Your task to perform on an android device: turn on location history Image 0: 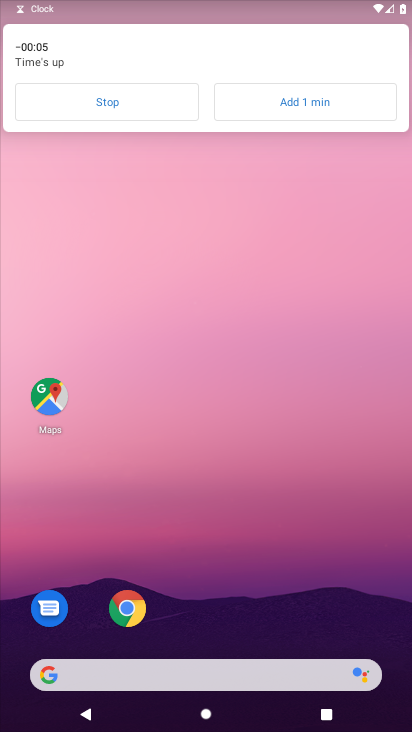
Step 0: click (139, 123)
Your task to perform on an android device: turn on location history Image 1: 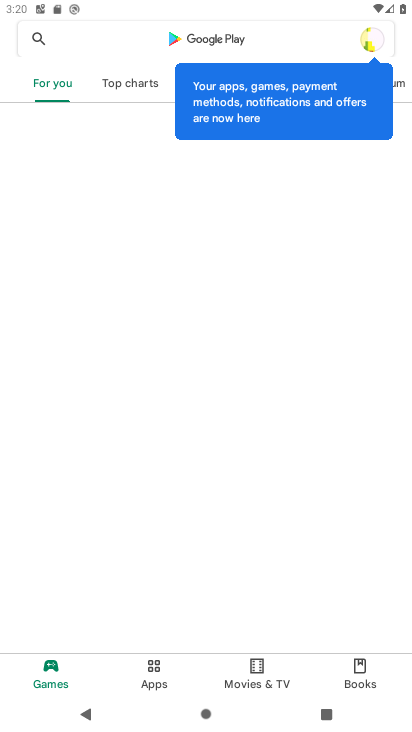
Step 1: press home button
Your task to perform on an android device: turn on location history Image 2: 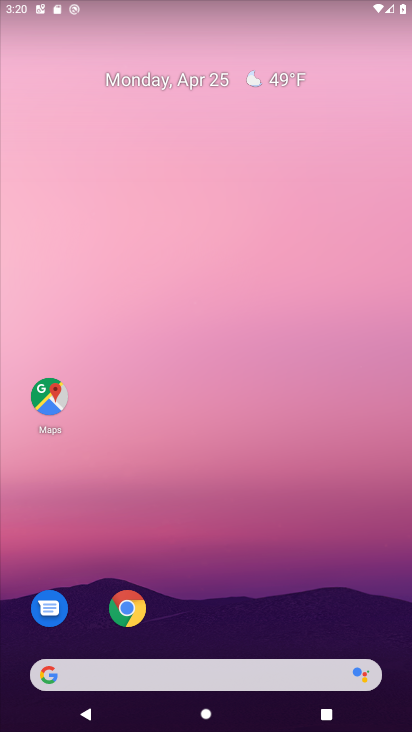
Step 2: drag from (244, 453) to (272, 116)
Your task to perform on an android device: turn on location history Image 3: 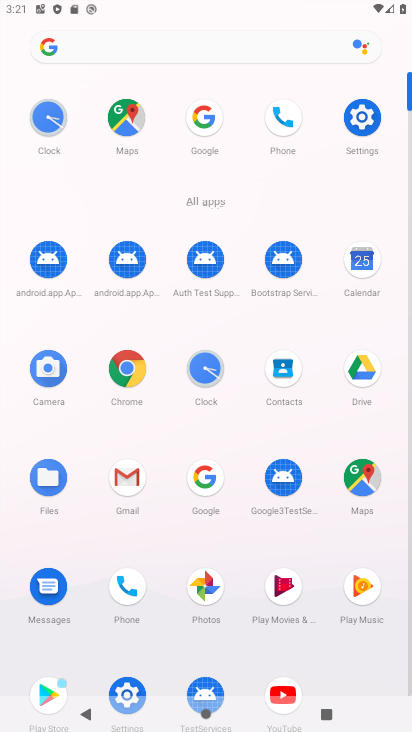
Step 3: click (375, 140)
Your task to perform on an android device: turn on location history Image 4: 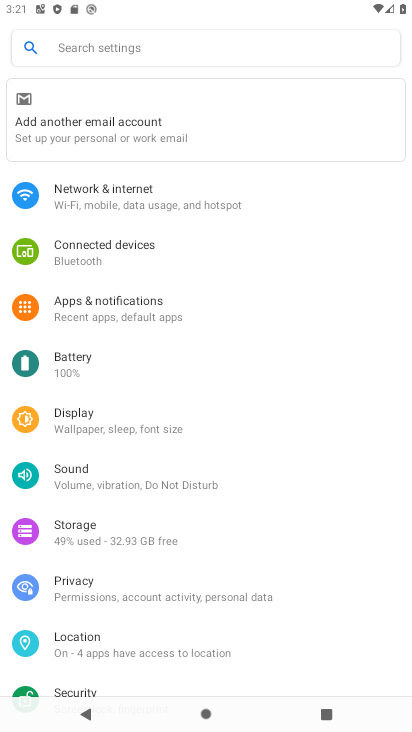
Step 4: click (101, 644)
Your task to perform on an android device: turn on location history Image 5: 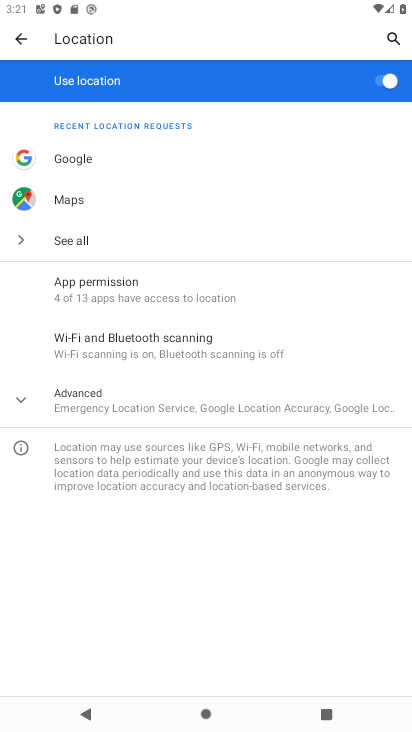
Step 5: click (161, 404)
Your task to perform on an android device: turn on location history Image 6: 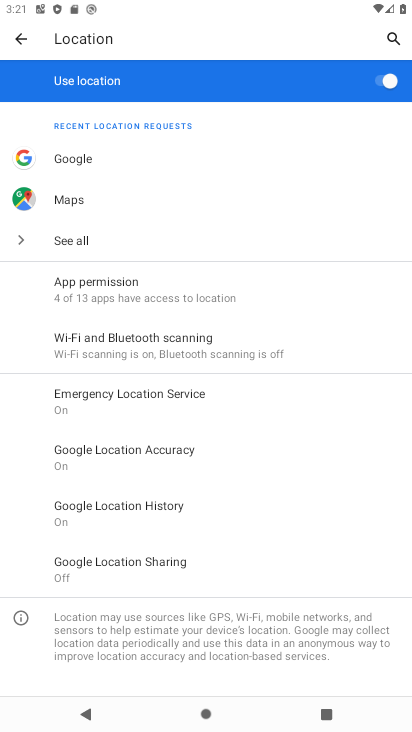
Step 6: drag from (228, 510) to (245, 355)
Your task to perform on an android device: turn on location history Image 7: 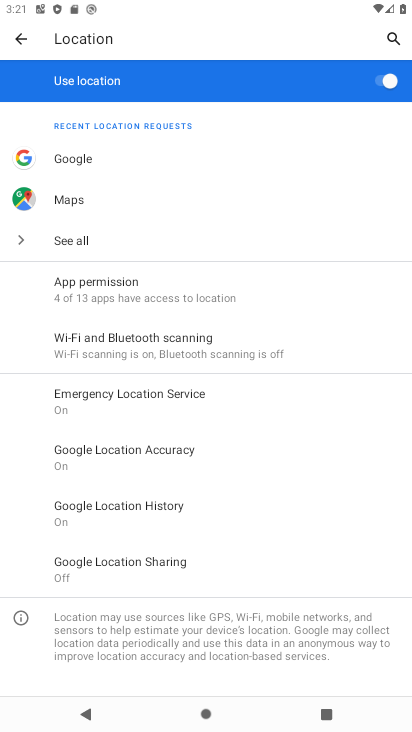
Step 7: click (193, 511)
Your task to perform on an android device: turn on location history Image 8: 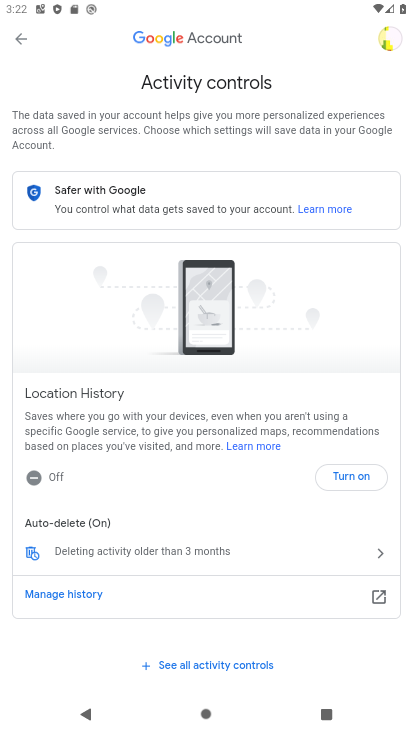
Step 8: click (343, 477)
Your task to perform on an android device: turn on location history Image 9: 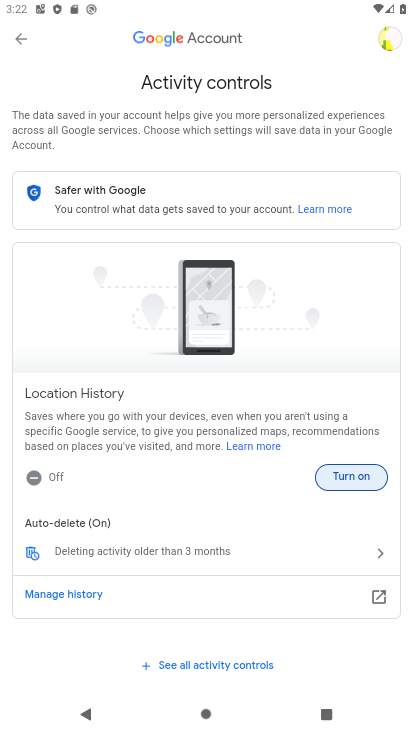
Step 9: click (373, 479)
Your task to perform on an android device: turn on location history Image 10: 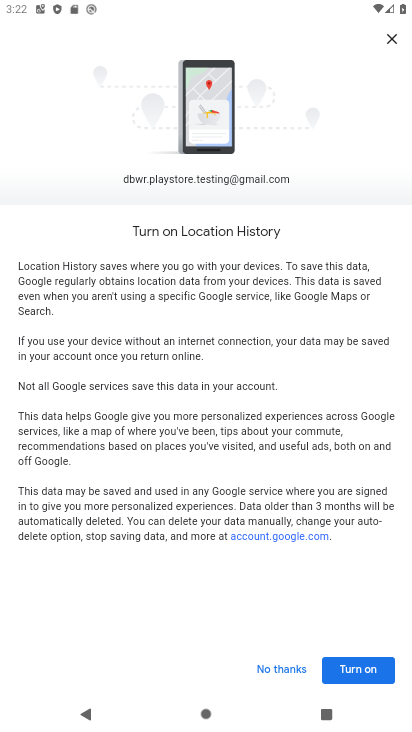
Step 10: drag from (341, 605) to (353, 328)
Your task to perform on an android device: turn on location history Image 11: 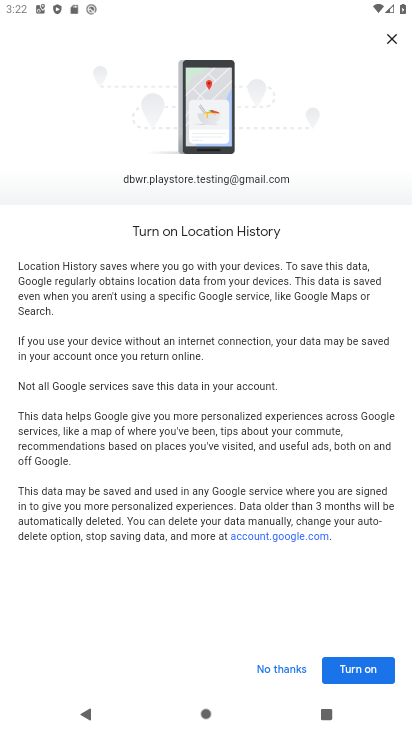
Step 11: click (384, 679)
Your task to perform on an android device: turn on location history Image 12: 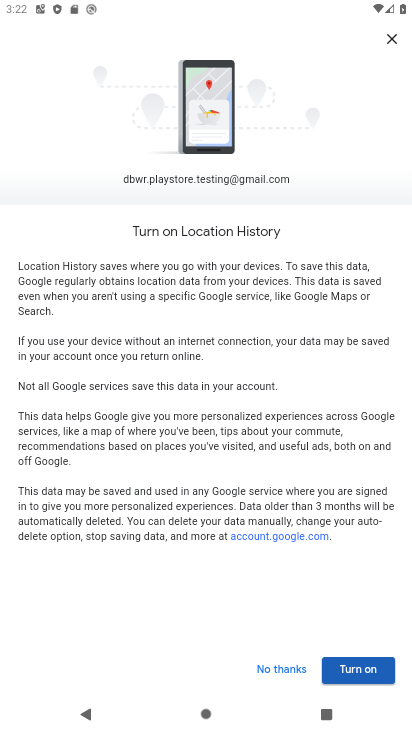
Step 12: click (384, 677)
Your task to perform on an android device: turn on location history Image 13: 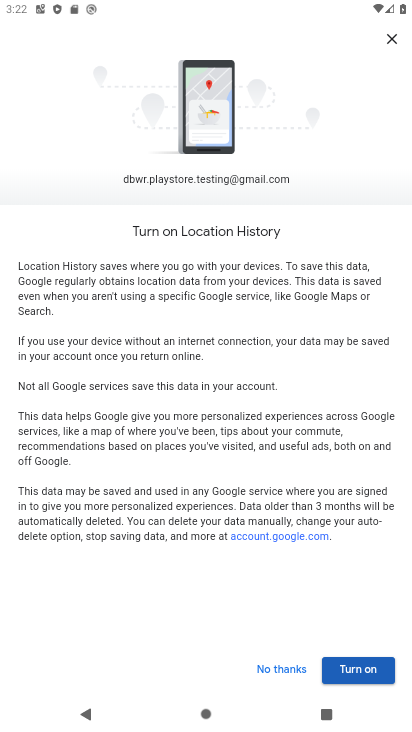
Step 13: click (362, 675)
Your task to perform on an android device: turn on location history Image 14: 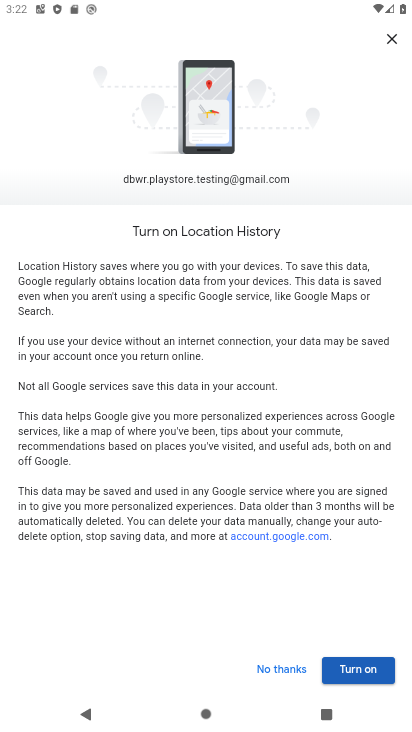
Step 14: click (362, 671)
Your task to perform on an android device: turn on location history Image 15: 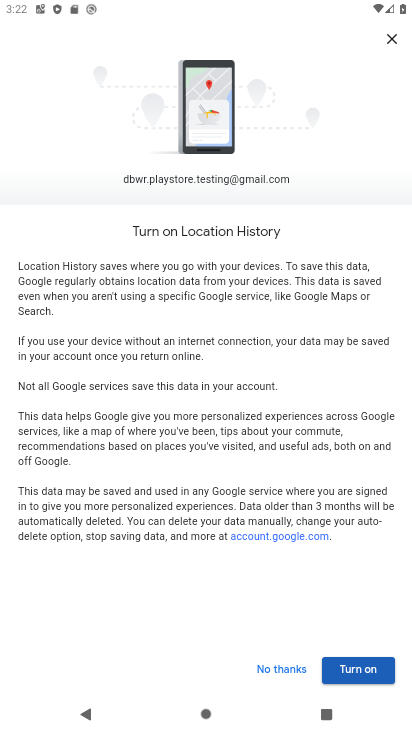
Step 15: click (365, 671)
Your task to perform on an android device: turn on location history Image 16: 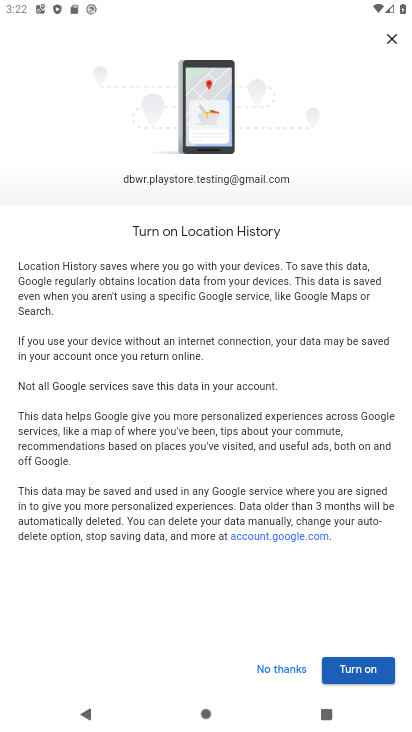
Step 16: click (365, 675)
Your task to perform on an android device: turn on location history Image 17: 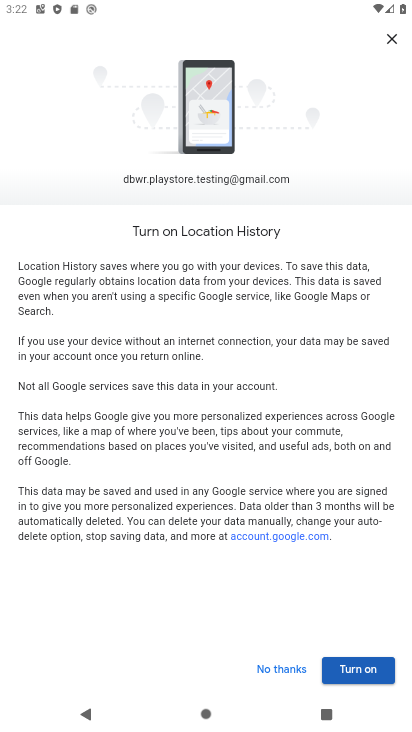
Step 17: click (381, 678)
Your task to perform on an android device: turn on location history Image 18: 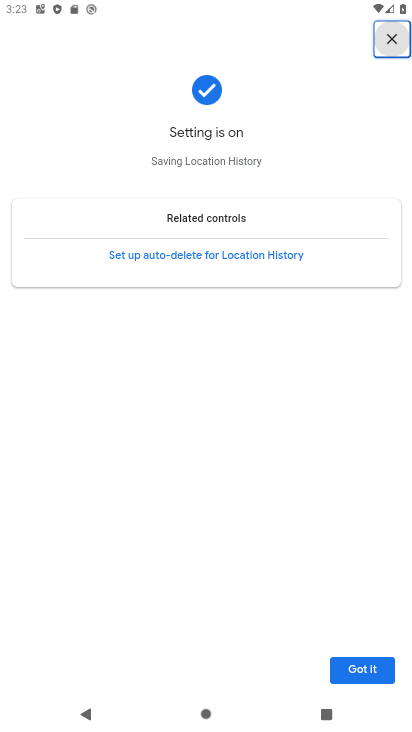
Step 18: click (372, 672)
Your task to perform on an android device: turn on location history Image 19: 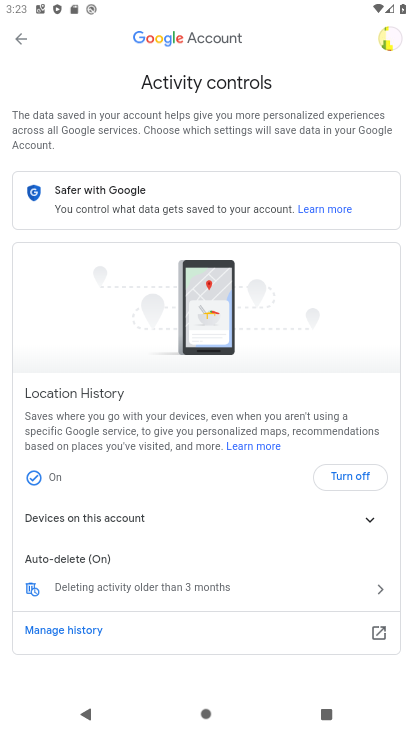
Step 19: task complete